Your task to perform on an android device: Go to Amazon Image 0: 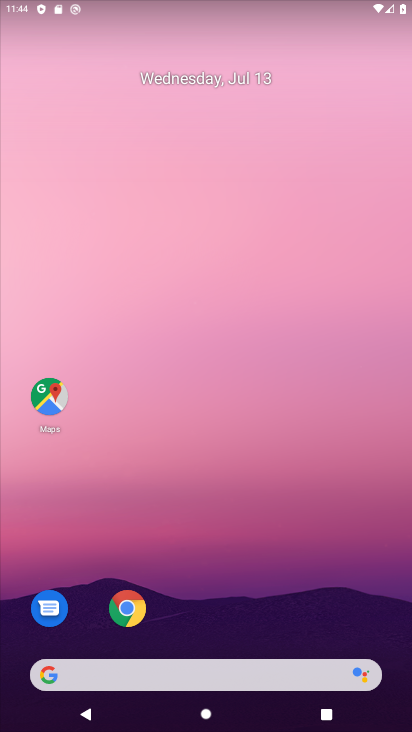
Step 0: click (112, 611)
Your task to perform on an android device: Go to Amazon Image 1: 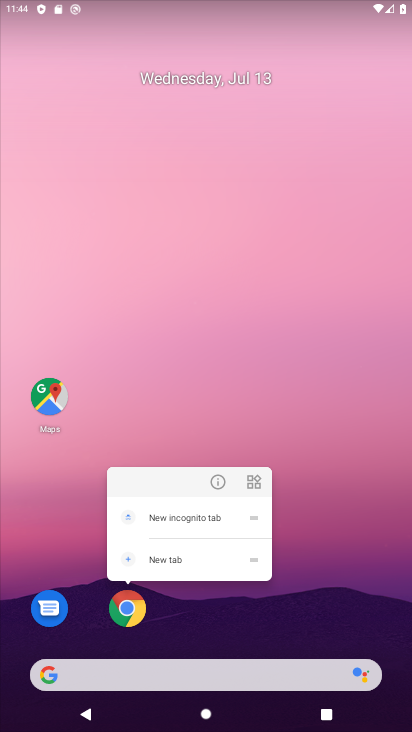
Step 1: click (125, 614)
Your task to perform on an android device: Go to Amazon Image 2: 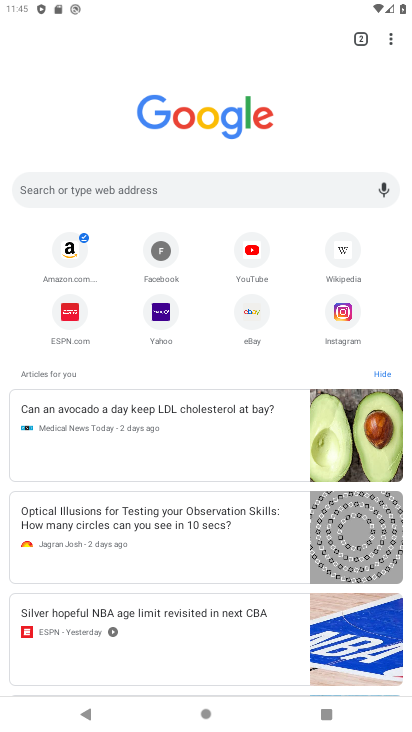
Step 2: click (76, 250)
Your task to perform on an android device: Go to Amazon Image 3: 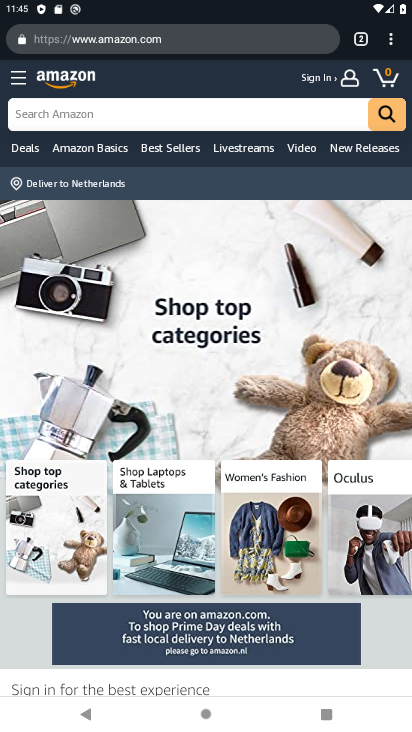
Step 3: task complete